Your task to perform on an android device: check google app version Image 0: 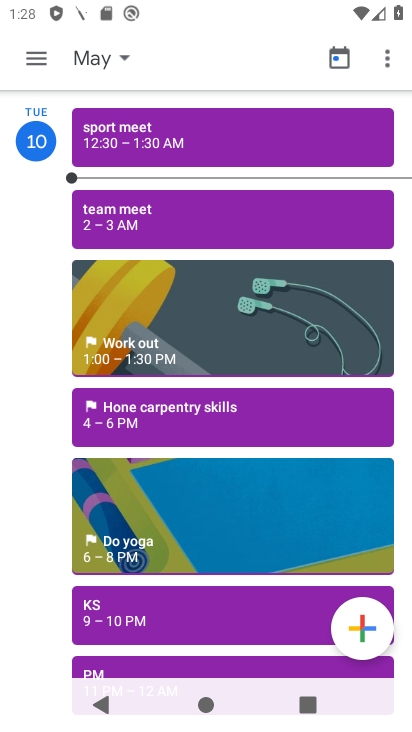
Step 0: press home button
Your task to perform on an android device: check google app version Image 1: 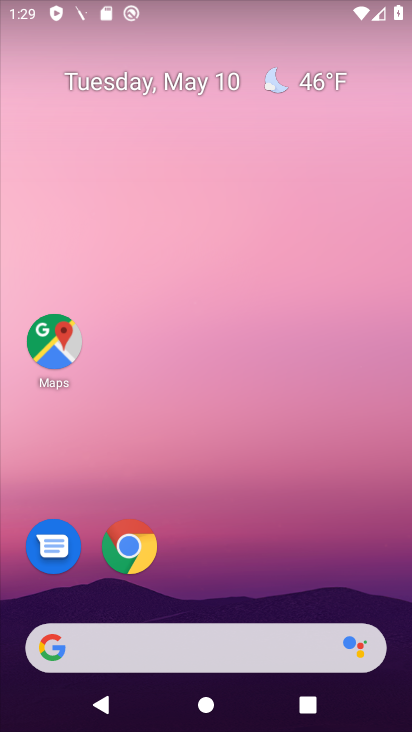
Step 1: click (130, 544)
Your task to perform on an android device: check google app version Image 2: 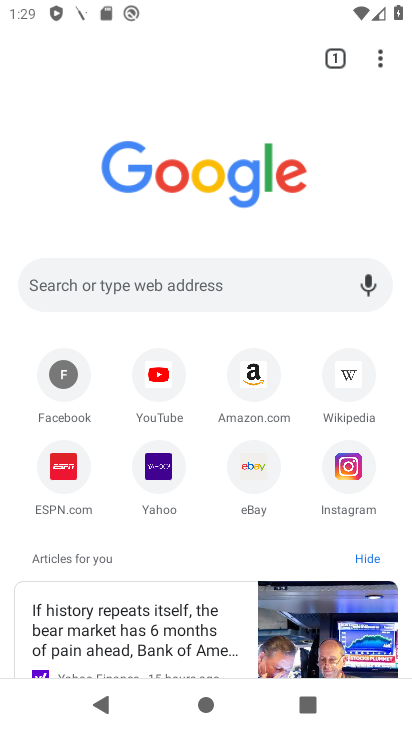
Step 2: click (377, 64)
Your task to perform on an android device: check google app version Image 3: 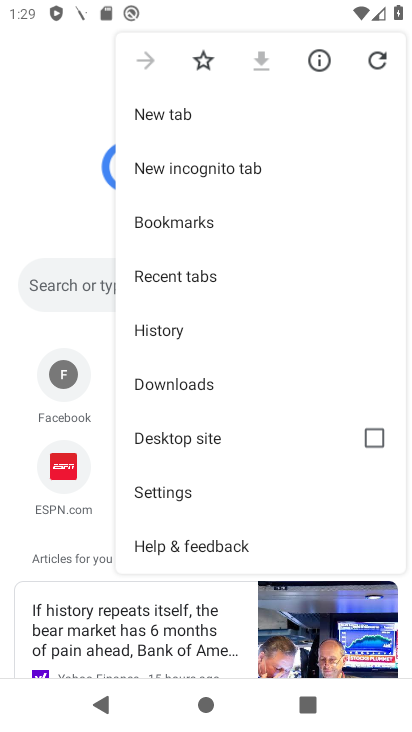
Step 3: click (174, 490)
Your task to perform on an android device: check google app version Image 4: 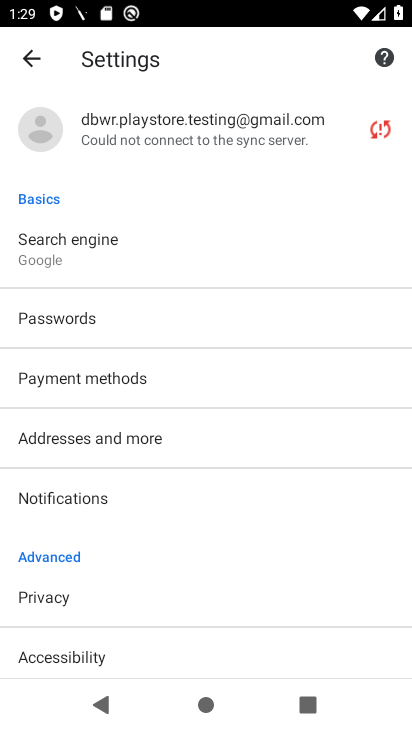
Step 4: drag from (239, 588) to (234, 222)
Your task to perform on an android device: check google app version Image 5: 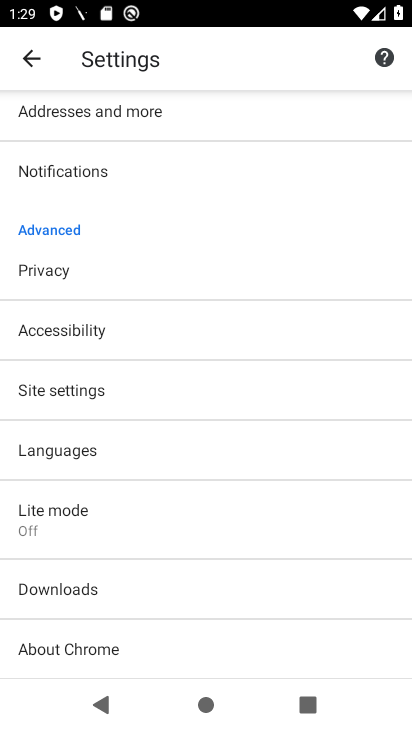
Step 5: click (49, 650)
Your task to perform on an android device: check google app version Image 6: 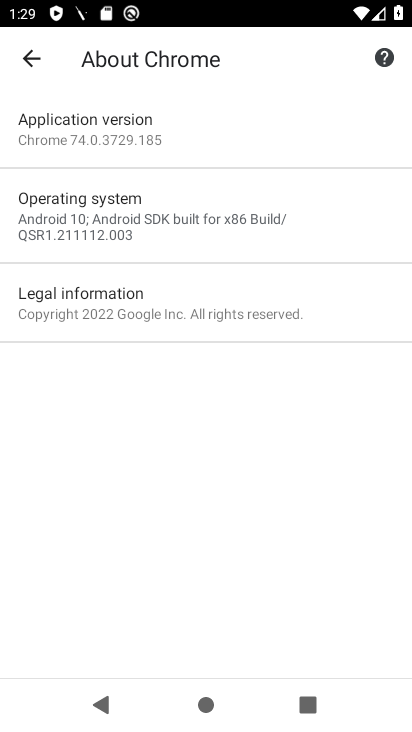
Step 6: click (86, 144)
Your task to perform on an android device: check google app version Image 7: 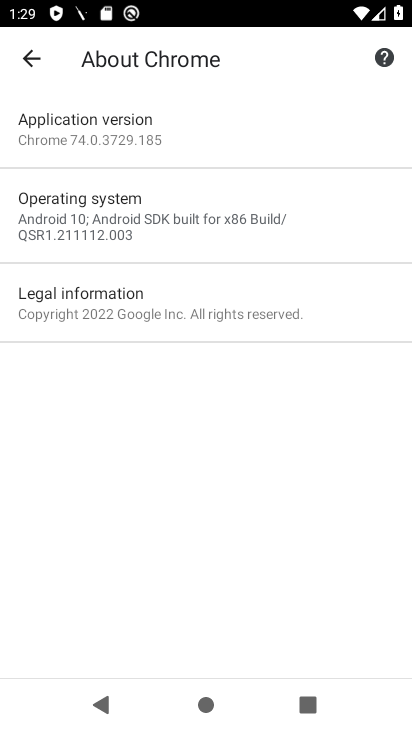
Step 7: task complete